Your task to perform on an android device: turn off airplane mode Image 0: 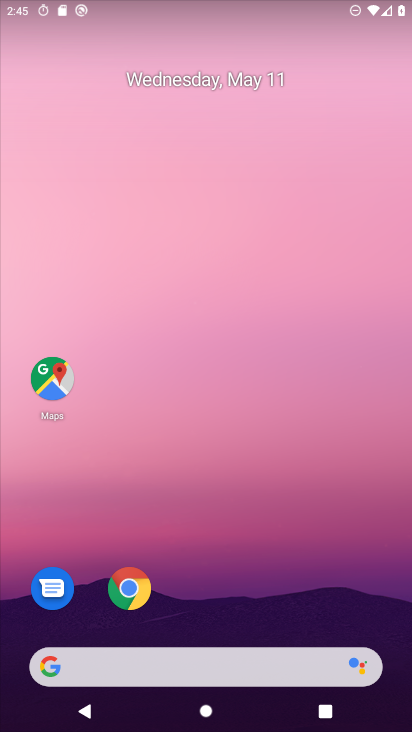
Step 0: press home button
Your task to perform on an android device: turn off airplane mode Image 1: 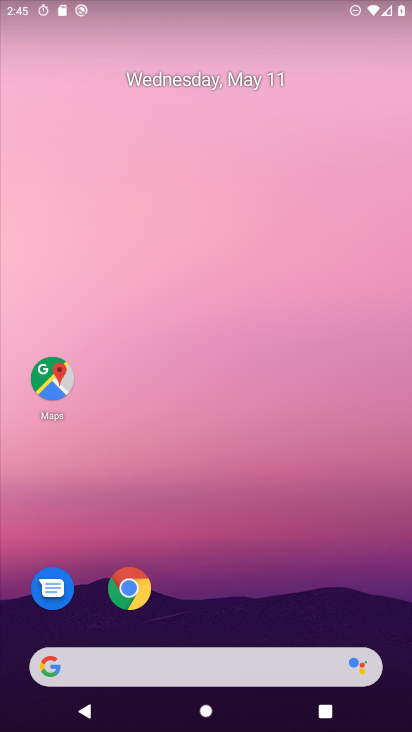
Step 1: task complete